Your task to perform on an android device: Show me popular games on the Play Store Image 0: 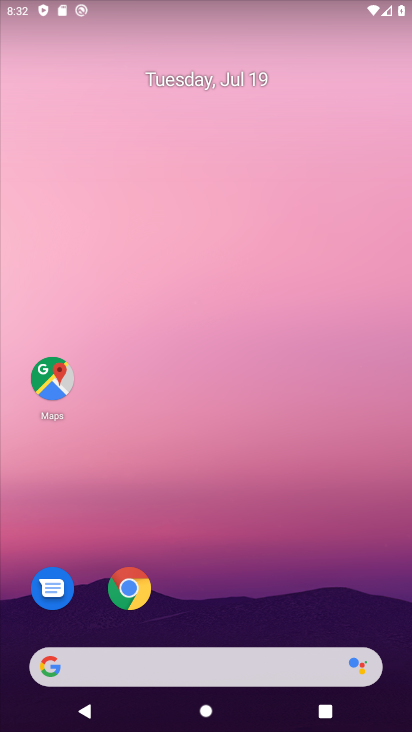
Step 0: drag from (354, 547) to (301, 89)
Your task to perform on an android device: Show me popular games on the Play Store Image 1: 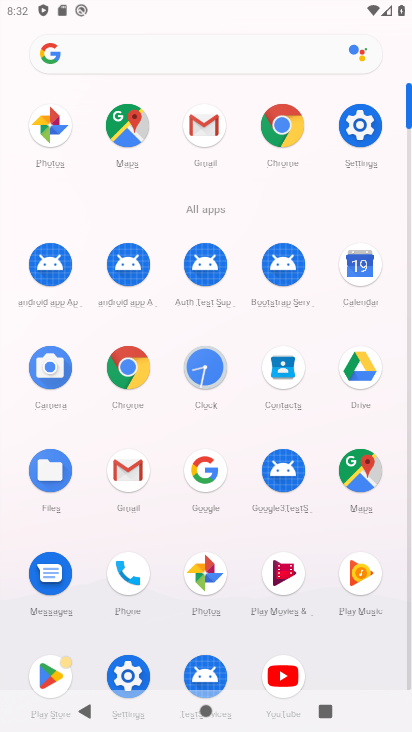
Step 1: click (51, 662)
Your task to perform on an android device: Show me popular games on the Play Store Image 2: 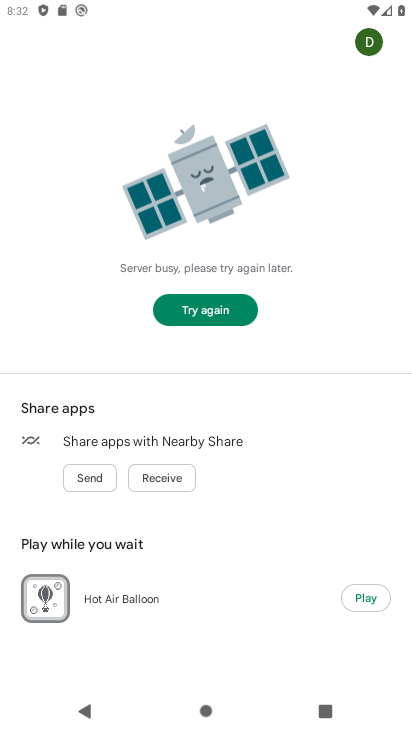
Step 2: press back button
Your task to perform on an android device: Show me popular games on the Play Store Image 3: 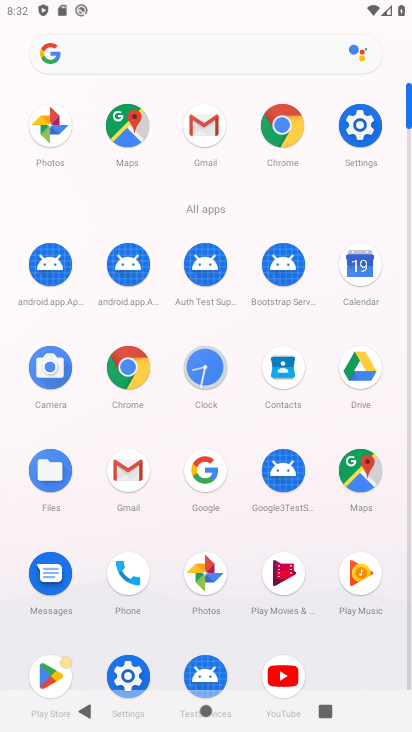
Step 3: click (52, 674)
Your task to perform on an android device: Show me popular games on the Play Store Image 4: 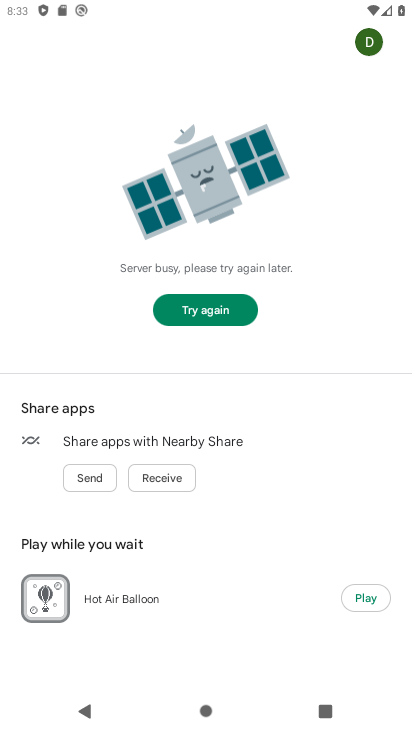
Step 4: click (215, 310)
Your task to perform on an android device: Show me popular games on the Play Store Image 5: 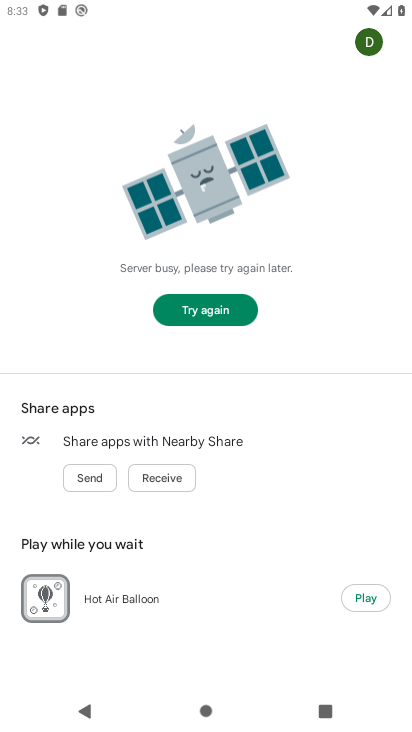
Step 5: task complete